Your task to perform on an android device: toggle wifi Image 0: 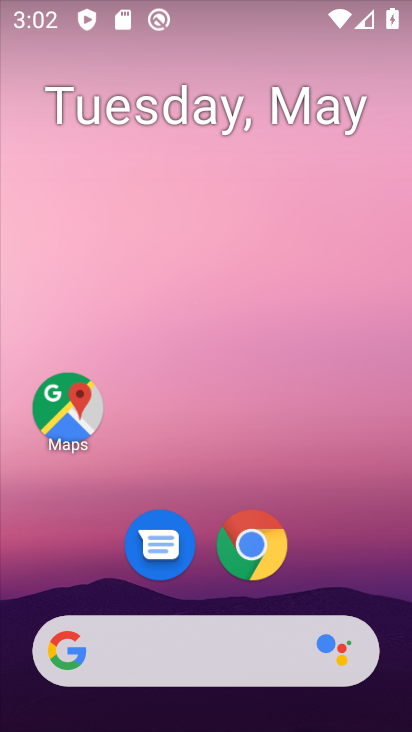
Step 0: drag from (319, 538) to (305, 172)
Your task to perform on an android device: toggle wifi Image 1: 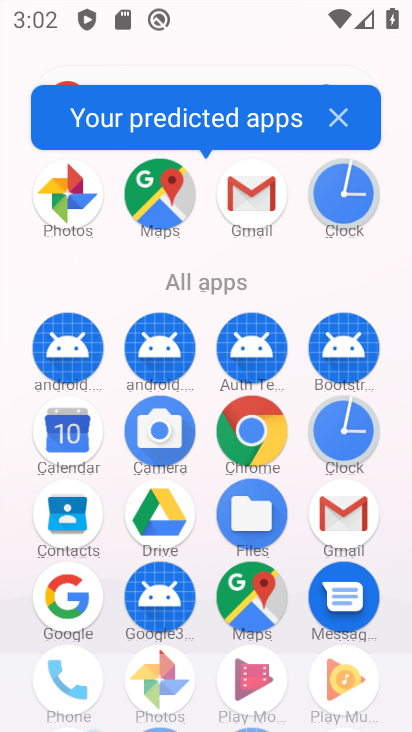
Step 1: drag from (197, 596) to (186, 238)
Your task to perform on an android device: toggle wifi Image 2: 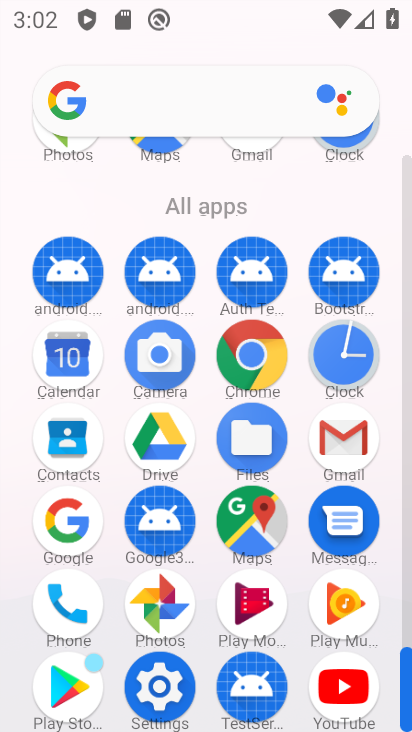
Step 2: click (164, 663)
Your task to perform on an android device: toggle wifi Image 3: 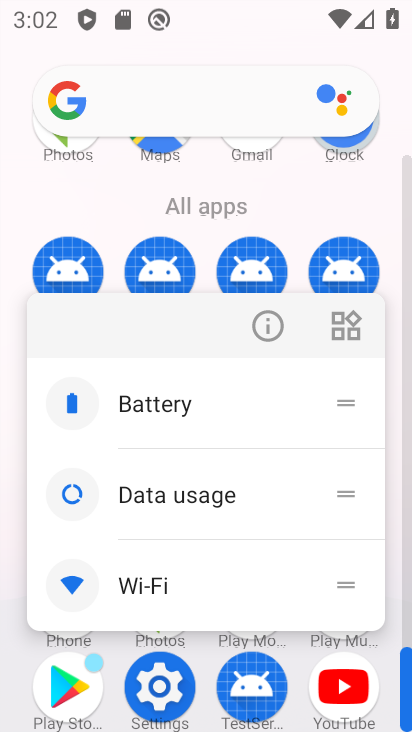
Step 3: click (171, 596)
Your task to perform on an android device: toggle wifi Image 4: 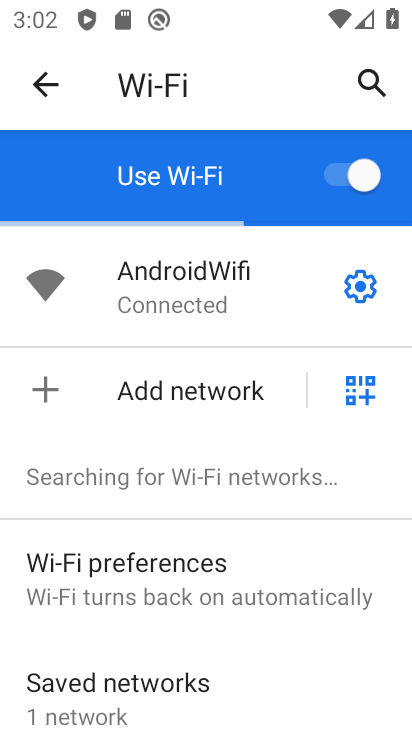
Step 4: click (360, 168)
Your task to perform on an android device: toggle wifi Image 5: 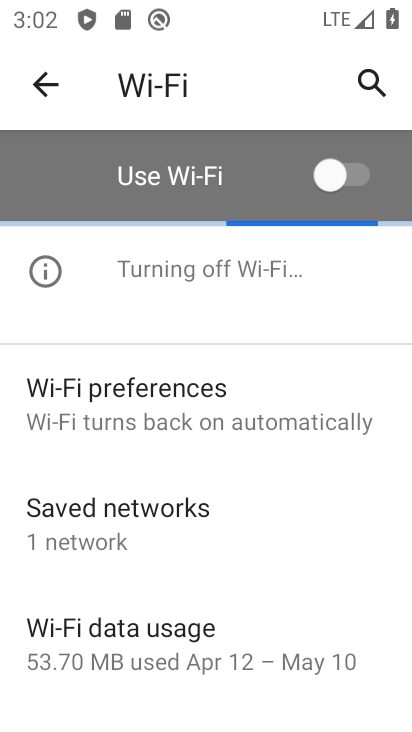
Step 5: task complete